Your task to perform on an android device: Open Google Chrome and click the shortcut for Amazon.com Image 0: 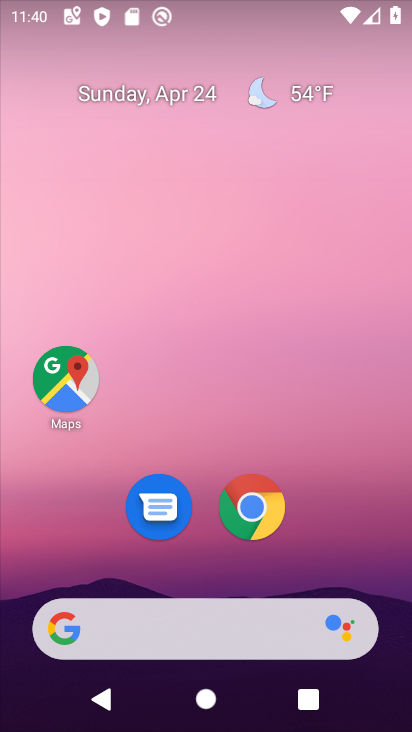
Step 0: drag from (325, 480) to (276, 22)
Your task to perform on an android device: Open Google Chrome and click the shortcut for Amazon.com Image 1: 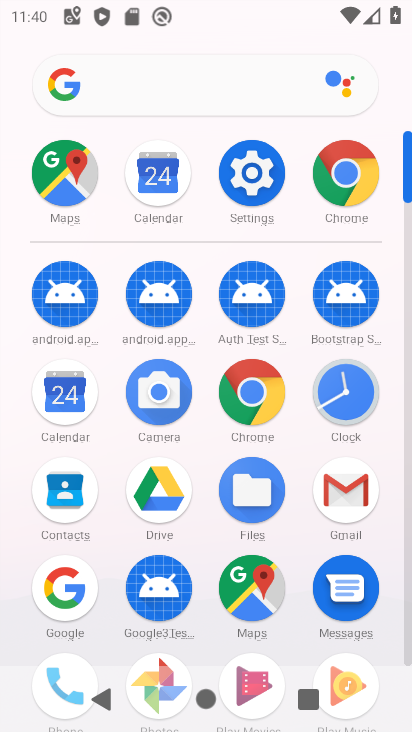
Step 1: drag from (9, 509) to (17, 179)
Your task to perform on an android device: Open Google Chrome and click the shortcut for Amazon.com Image 2: 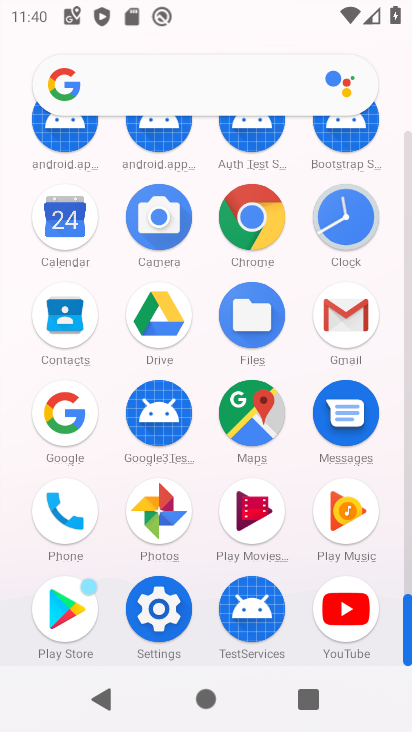
Step 2: drag from (12, 545) to (14, 297)
Your task to perform on an android device: Open Google Chrome and click the shortcut for Amazon.com Image 3: 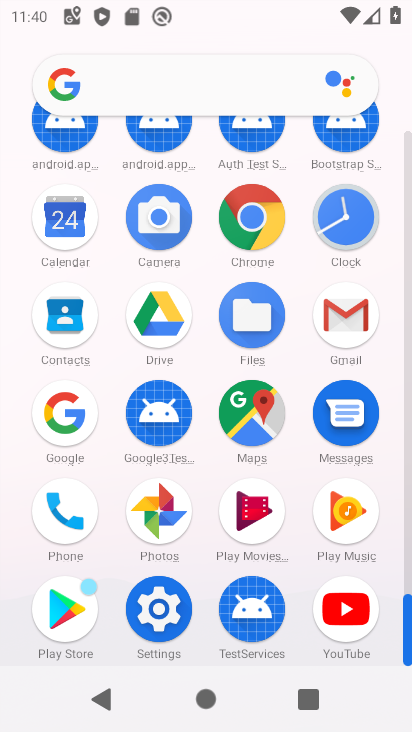
Step 3: click (243, 219)
Your task to perform on an android device: Open Google Chrome and click the shortcut for Amazon.com Image 4: 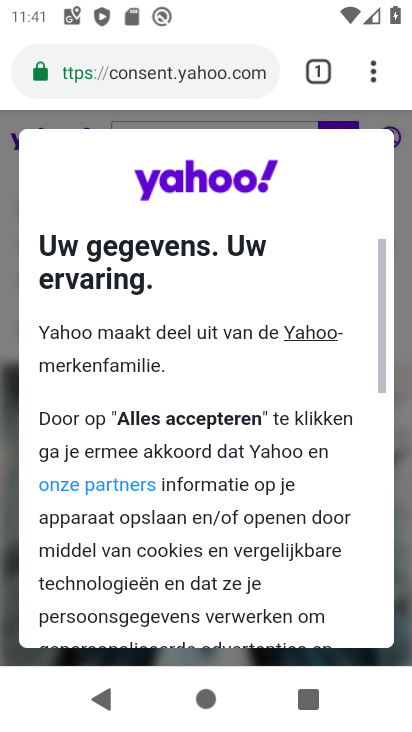
Step 4: click (125, 59)
Your task to perform on an android device: Open Google Chrome and click the shortcut for Amazon.com Image 5: 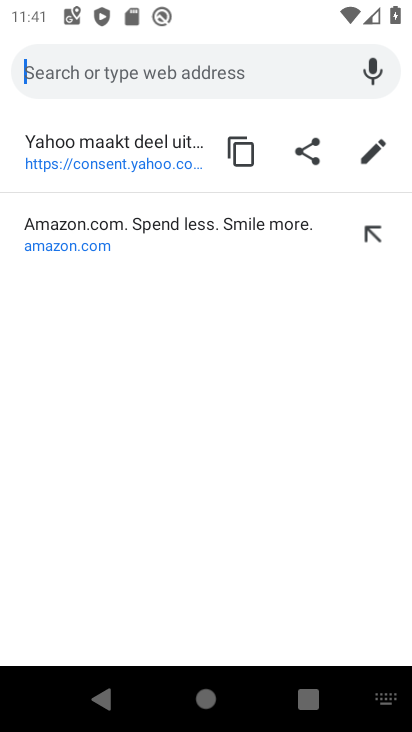
Step 5: click (152, 241)
Your task to perform on an android device: Open Google Chrome and click the shortcut for Amazon.com Image 6: 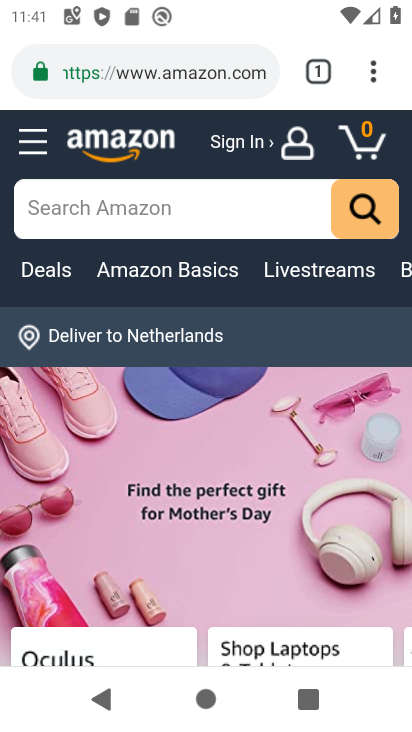
Step 6: drag from (361, 64) to (147, 369)
Your task to perform on an android device: Open Google Chrome and click the shortcut for Amazon.com Image 7: 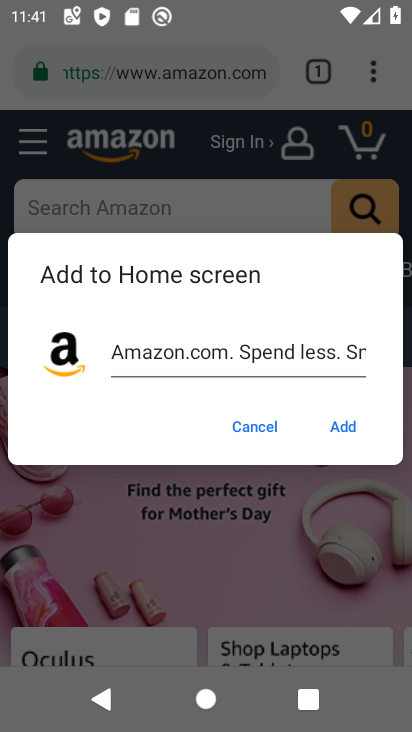
Step 7: click (340, 422)
Your task to perform on an android device: Open Google Chrome and click the shortcut for Amazon.com Image 8: 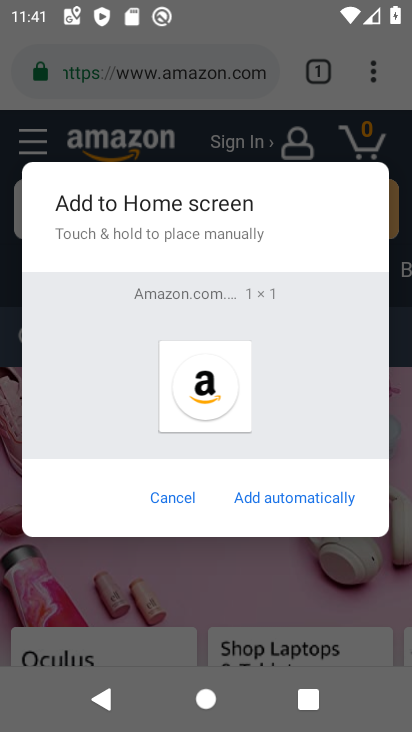
Step 8: click (315, 488)
Your task to perform on an android device: Open Google Chrome and click the shortcut for Amazon.com Image 9: 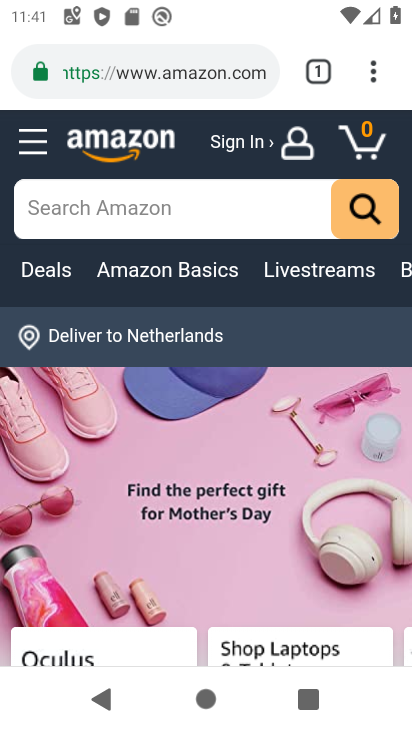
Step 9: task complete